Your task to perform on an android device: turn off notifications in google photos Image 0: 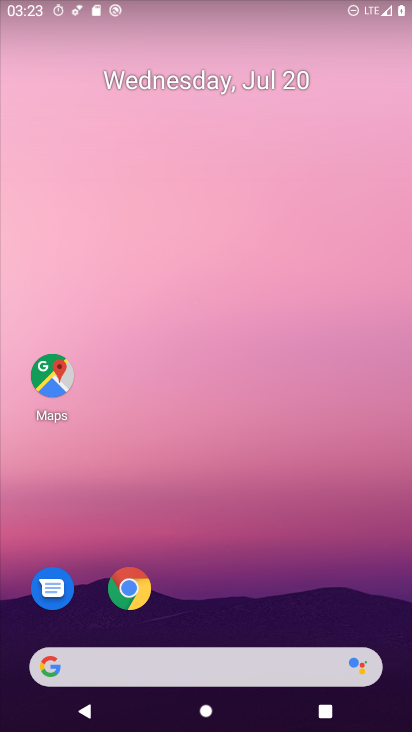
Step 0: drag from (238, 644) to (318, 18)
Your task to perform on an android device: turn off notifications in google photos Image 1: 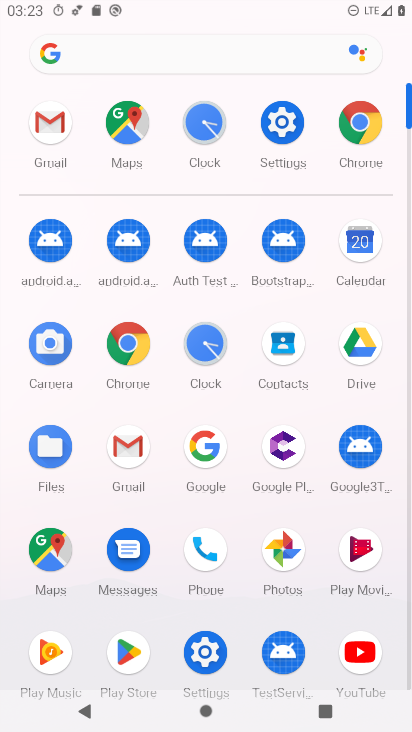
Step 1: click (288, 561)
Your task to perform on an android device: turn off notifications in google photos Image 2: 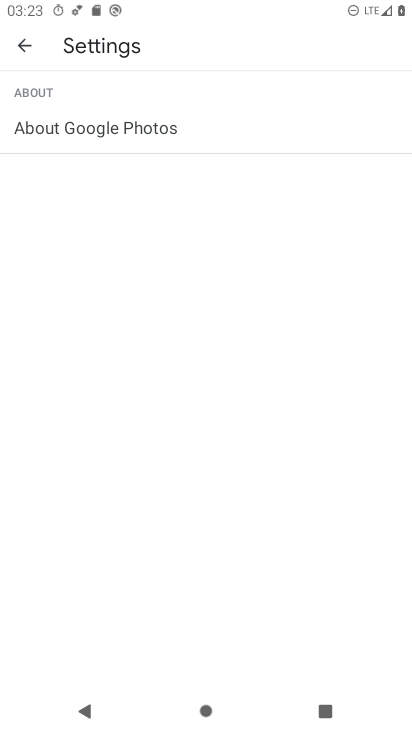
Step 2: click (26, 42)
Your task to perform on an android device: turn off notifications in google photos Image 3: 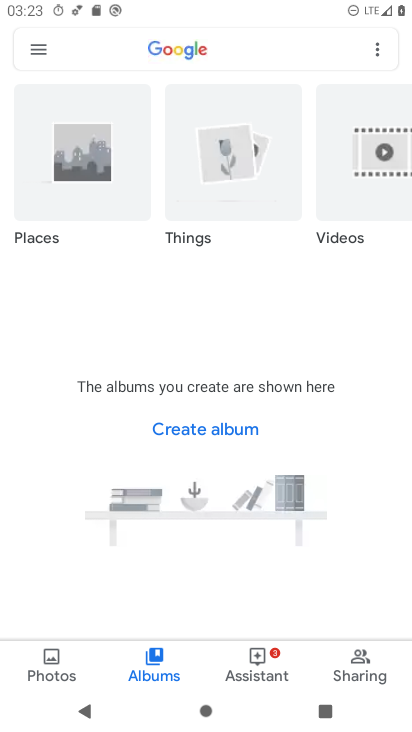
Step 3: click (26, 42)
Your task to perform on an android device: turn off notifications in google photos Image 4: 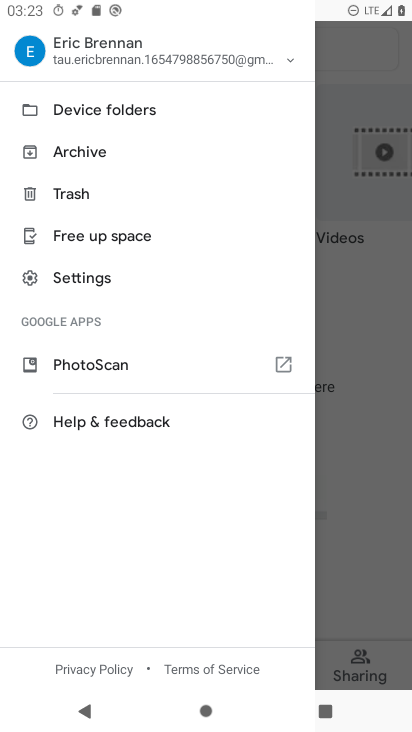
Step 4: click (68, 287)
Your task to perform on an android device: turn off notifications in google photos Image 5: 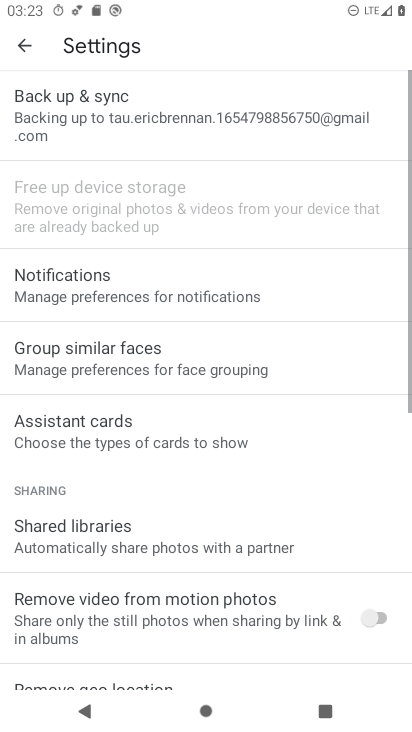
Step 5: click (68, 287)
Your task to perform on an android device: turn off notifications in google photos Image 6: 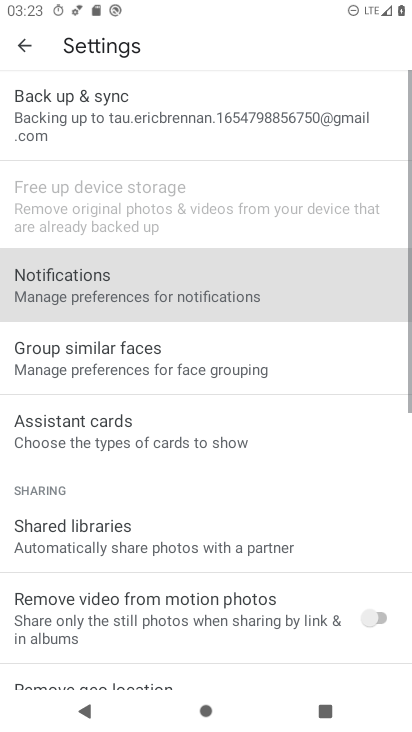
Step 6: click (68, 287)
Your task to perform on an android device: turn off notifications in google photos Image 7: 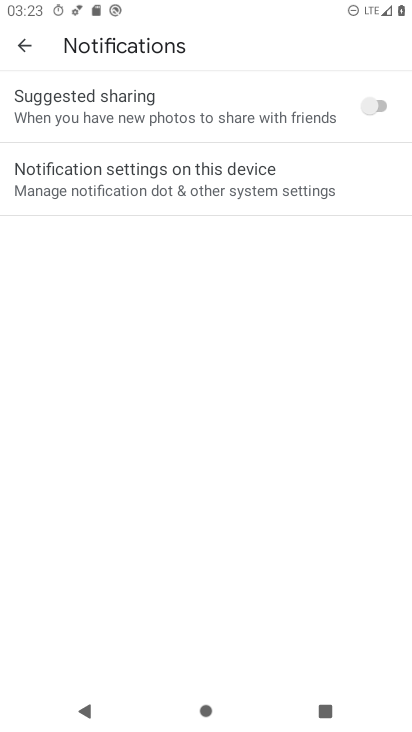
Step 7: click (142, 197)
Your task to perform on an android device: turn off notifications in google photos Image 8: 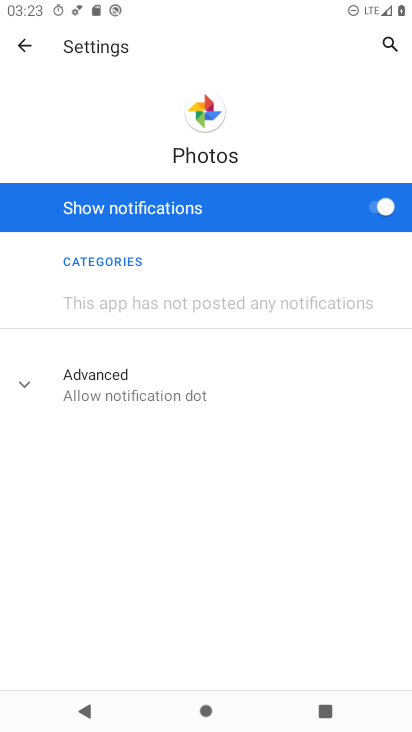
Step 8: click (373, 212)
Your task to perform on an android device: turn off notifications in google photos Image 9: 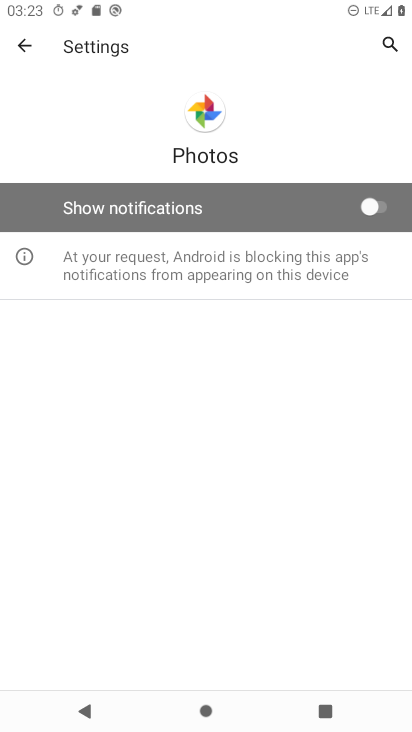
Step 9: task complete